Your task to perform on an android device: Open Maps and search for coffee Image 0: 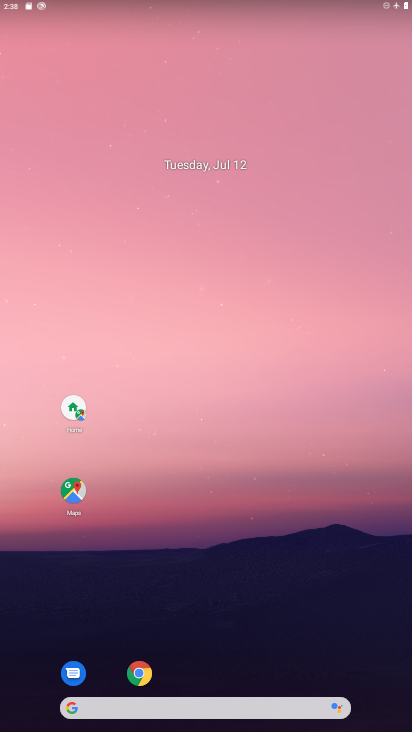
Step 0: drag from (192, 679) to (197, 277)
Your task to perform on an android device: Open Maps and search for coffee Image 1: 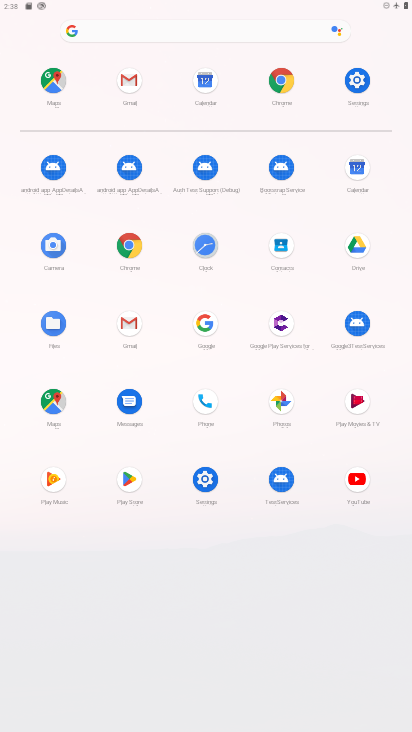
Step 1: click (43, 75)
Your task to perform on an android device: Open Maps and search for coffee Image 2: 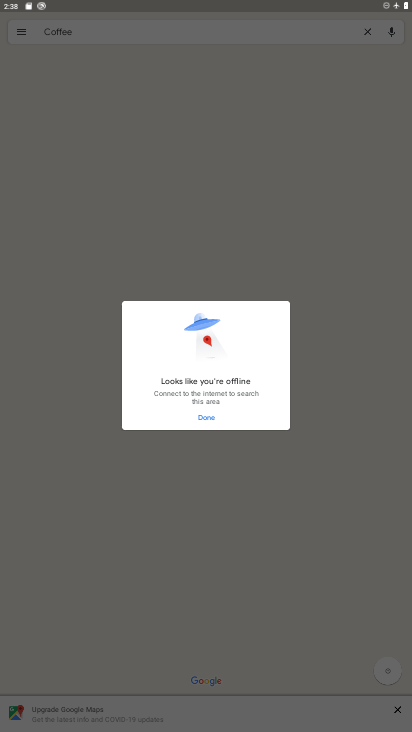
Step 2: click (219, 418)
Your task to perform on an android device: Open Maps and search for coffee Image 3: 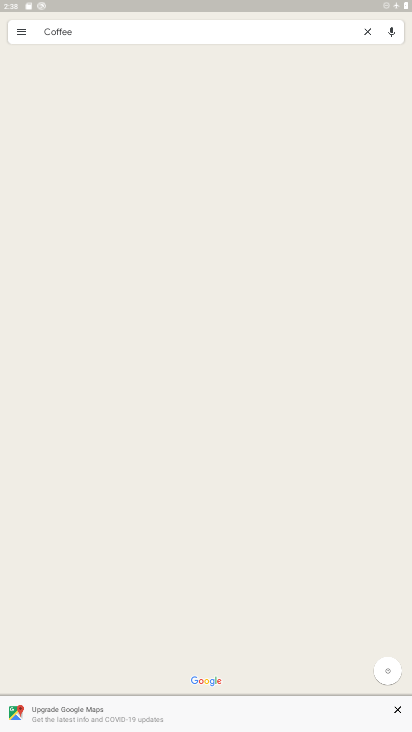
Step 3: task complete